Your task to perform on an android device: Open calendar and show me the second week of next month Image 0: 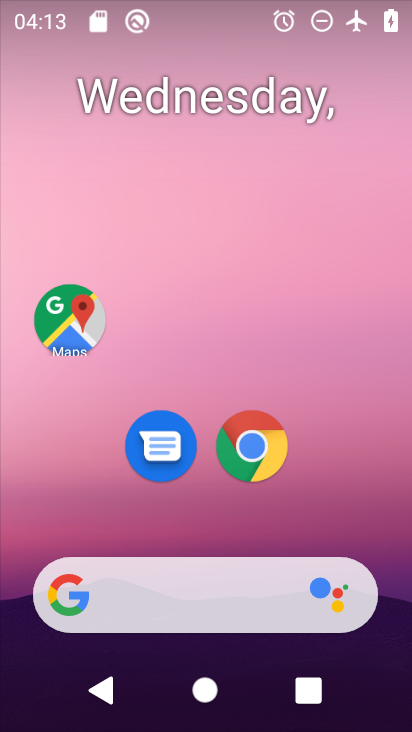
Step 0: drag from (204, 548) to (204, 186)
Your task to perform on an android device: Open calendar and show me the second week of next month Image 1: 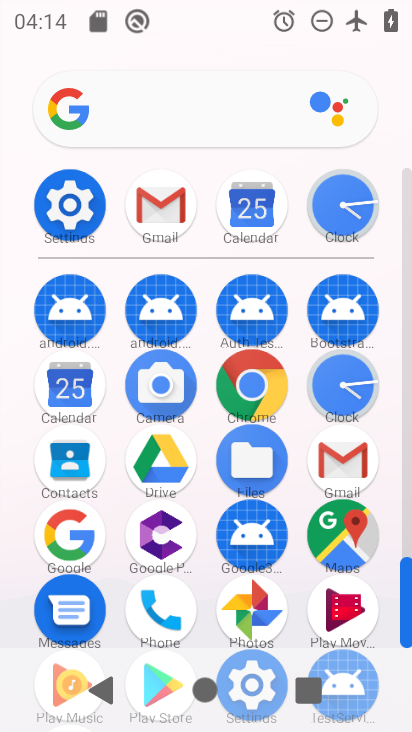
Step 1: click (81, 404)
Your task to perform on an android device: Open calendar and show me the second week of next month Image 2: 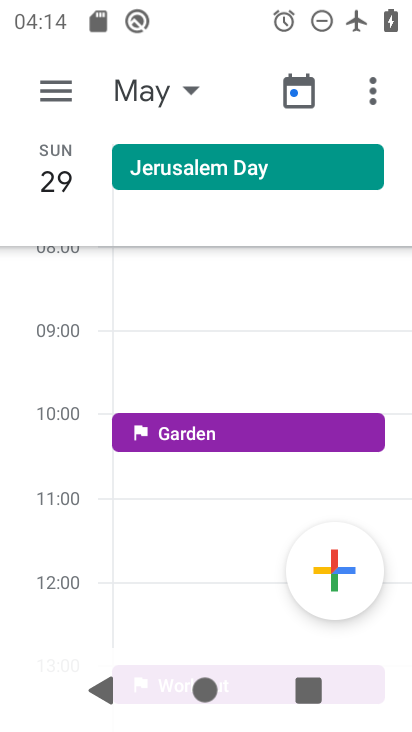
Step 2: click (189, 89)
Your task to perform on an android device: Open calendar and show me the second week of next month Image 3: 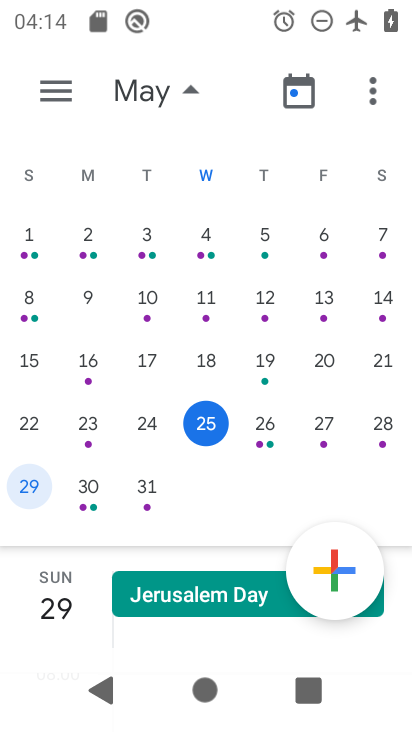
Step 3: drag from (332, 320) to (18, 282)
Your task to perform on an android device: Open calendar and show me the second week of next month Image 4: 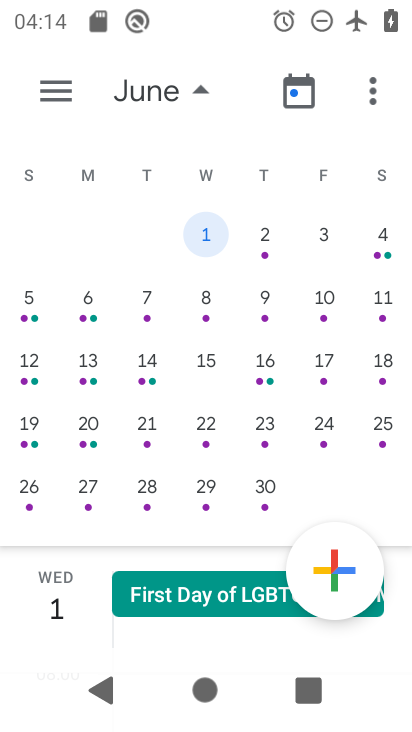
Step 4: click (37, 315)
Your task to perform on an android device: Open calendar and show me the second week of next month Image 5: 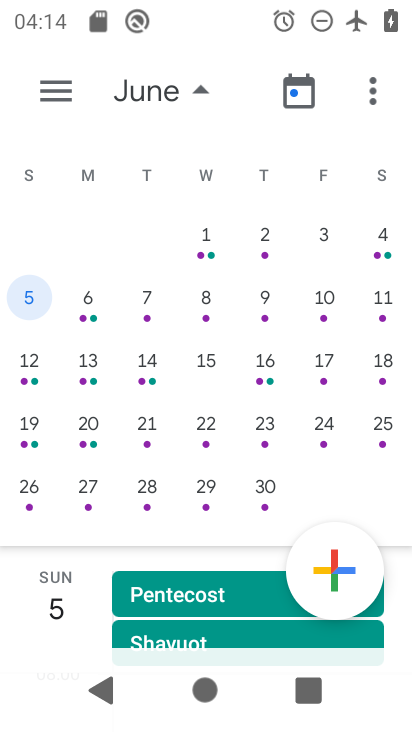
Step 5: task complete